Your task to perform on an android device: check battery use Image 0: 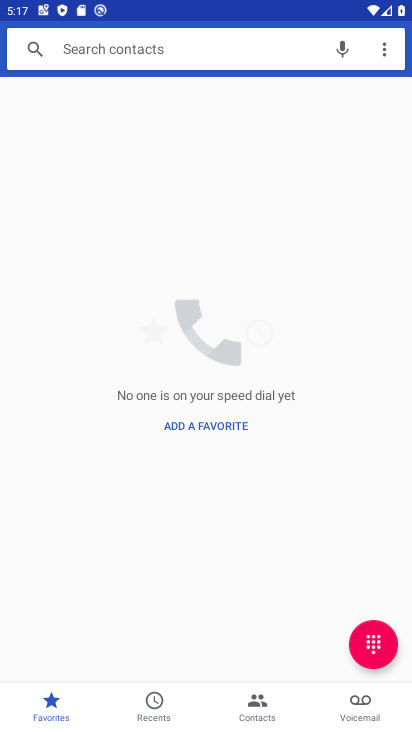
Step 0: press home button
Your task to perform on an android device: check battery use Image 1: 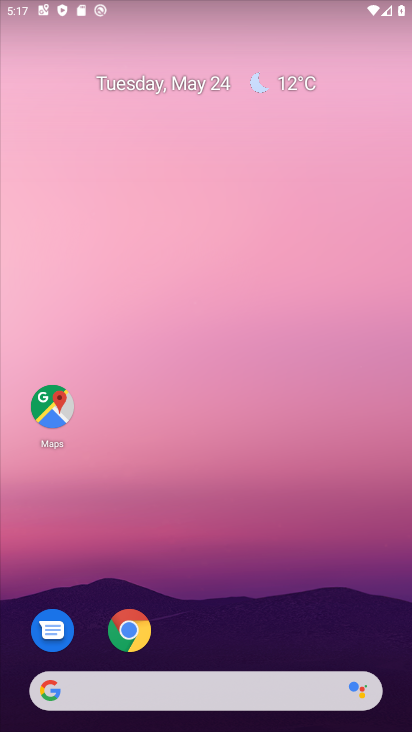
Step 1: drag from (221, 637) to (279, 34)
Your task to perform on an android device: check battery use Image 2: 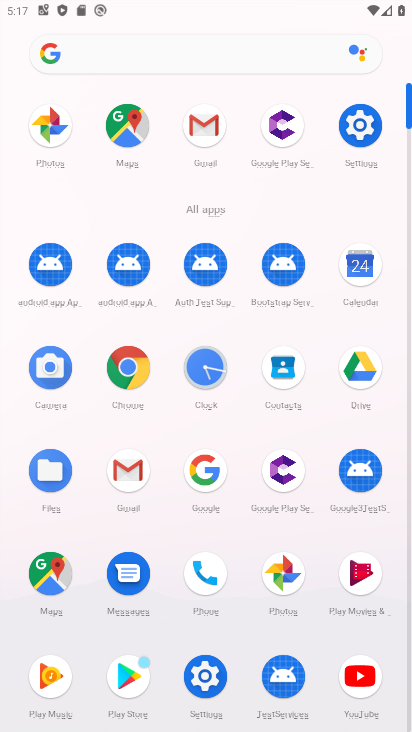
Step 2: click (360, 161)
Your task to perform on an android device: check battery use Image 3: 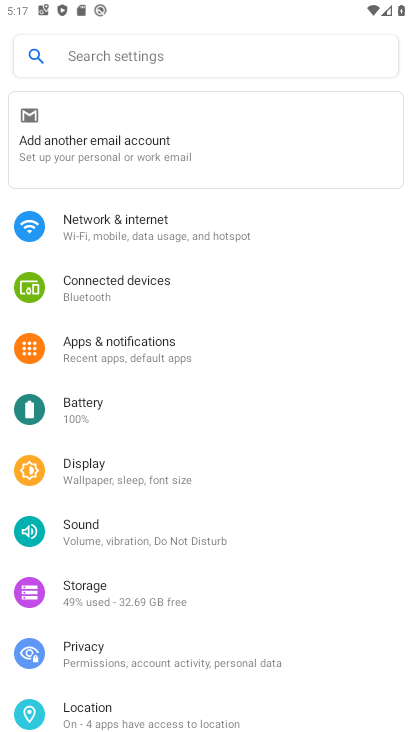
Step 3: click (104, 422)
Your task to perform on an android device: check battery use Image 4: 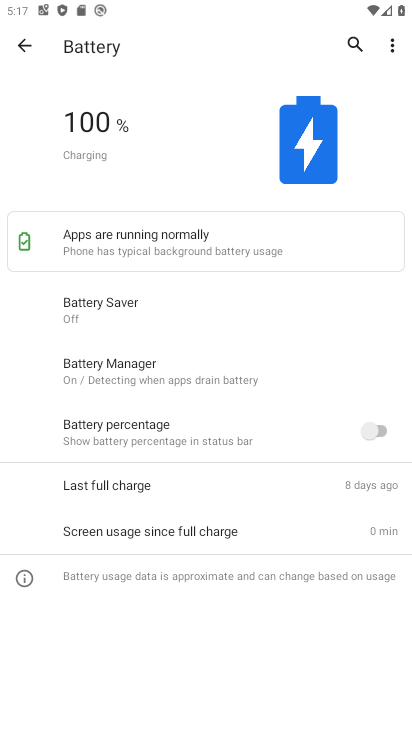
Step 4: task complete